Your task to perform on an android device: open chrome privacy settings Image 0: 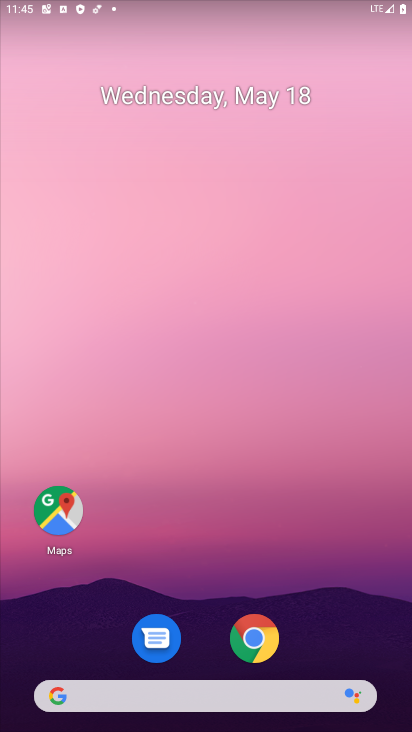
Step 0: drag from (333, 619) to (341, 576)
Your task to perform on an android device: open chrome privacy settings Image 1: 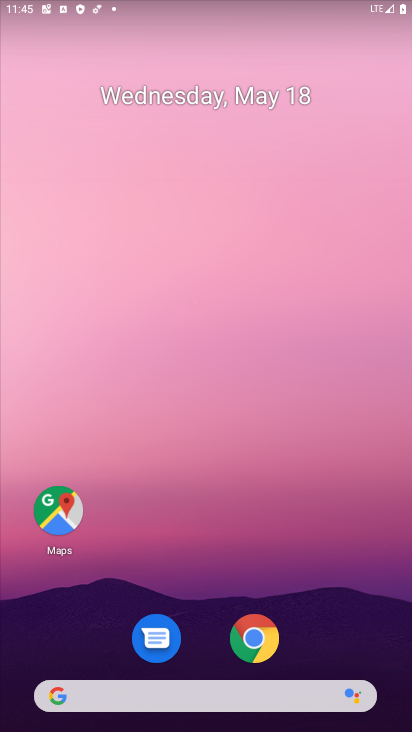
Step 1: drag from (372, 660) to (362, 621)
Your task to perform on an android device: open chrome privacy settings Image 2: 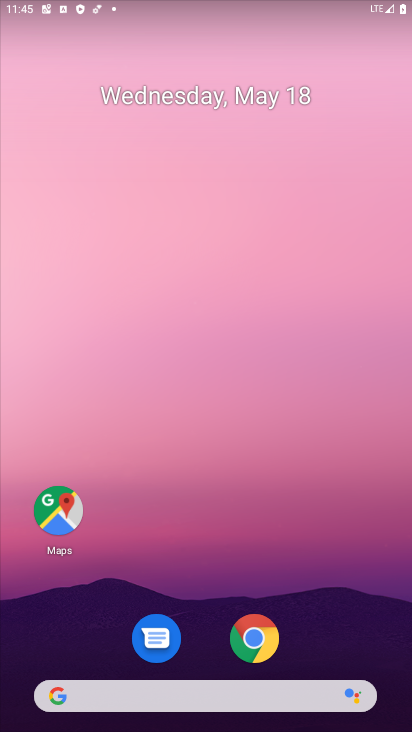
Step 2: drag from (333, 641) to (18, 708)
Your task to perform on an android device: open chrome privacy settings Image 3: 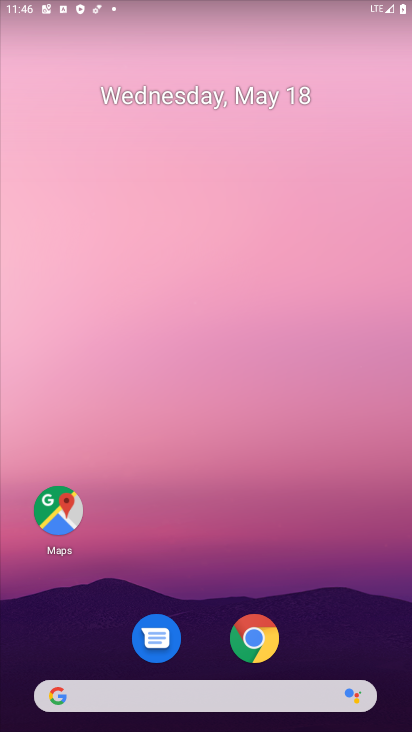
Step 3: drag from (356, 637) to (339, 111)
Your task to perform on an android device: open chrome privacy settings Image 4: 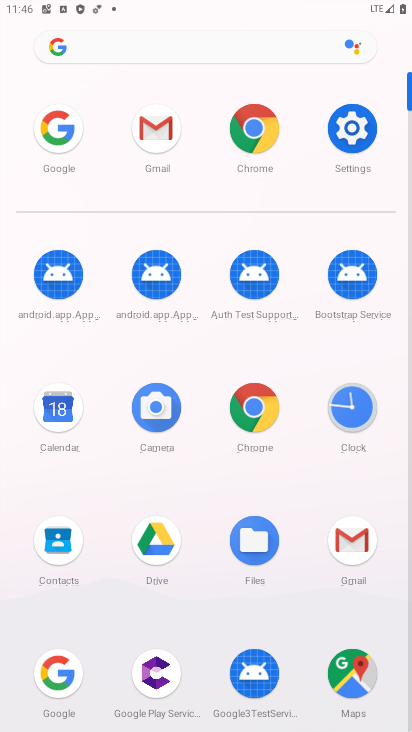
Step 4: click (261, 141)
Your task to perform on an android device: open chrome privacy settings Image 5: 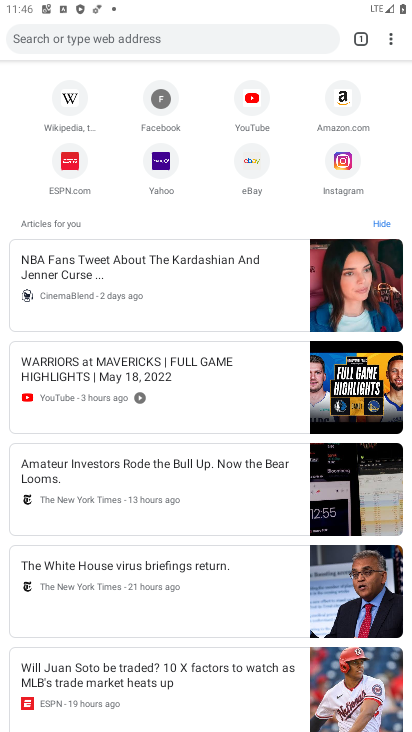
Step 5: click (389, 42)
Your task to perform on an android device: open chrome privacy settings Image 6: 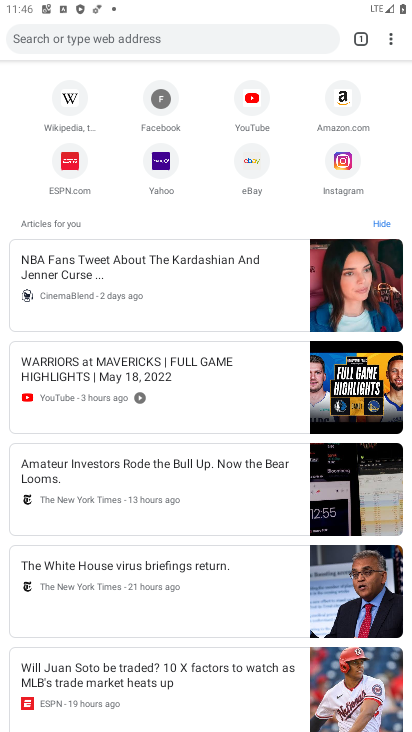
Step 6: click (392, 36)
Your task to perform on an android device: open chrome privacy settings Image 7: 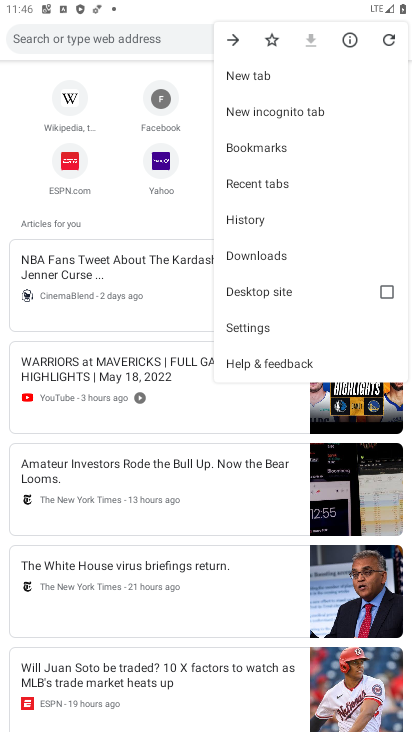
Step 7: click (276, 323)
Your task to perform on an android device: open chrome privacy settings Image 8: 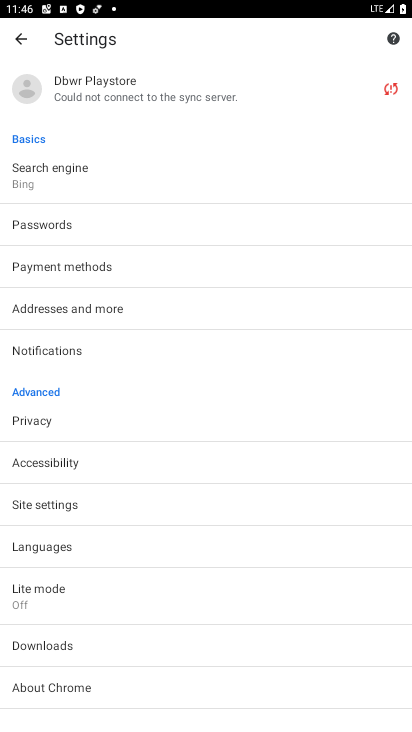
Step 8: click (84, 411)
Your task to perform on an android device: open chrome privacy settings Image 9: 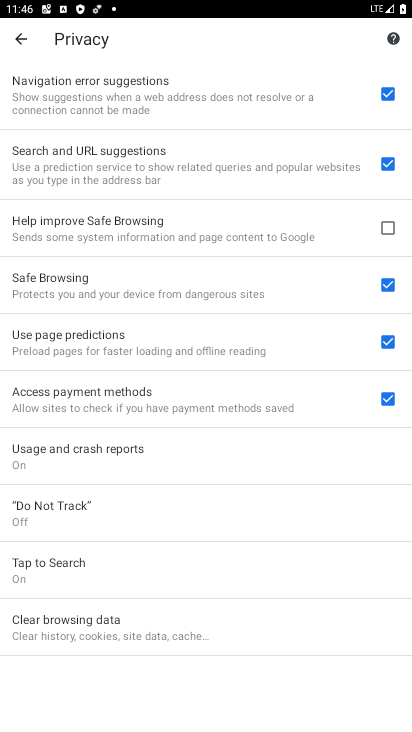
Step 9: task complete